Your task to perform on an android device: Check the settings for the Amazon Shopping app Image 0: 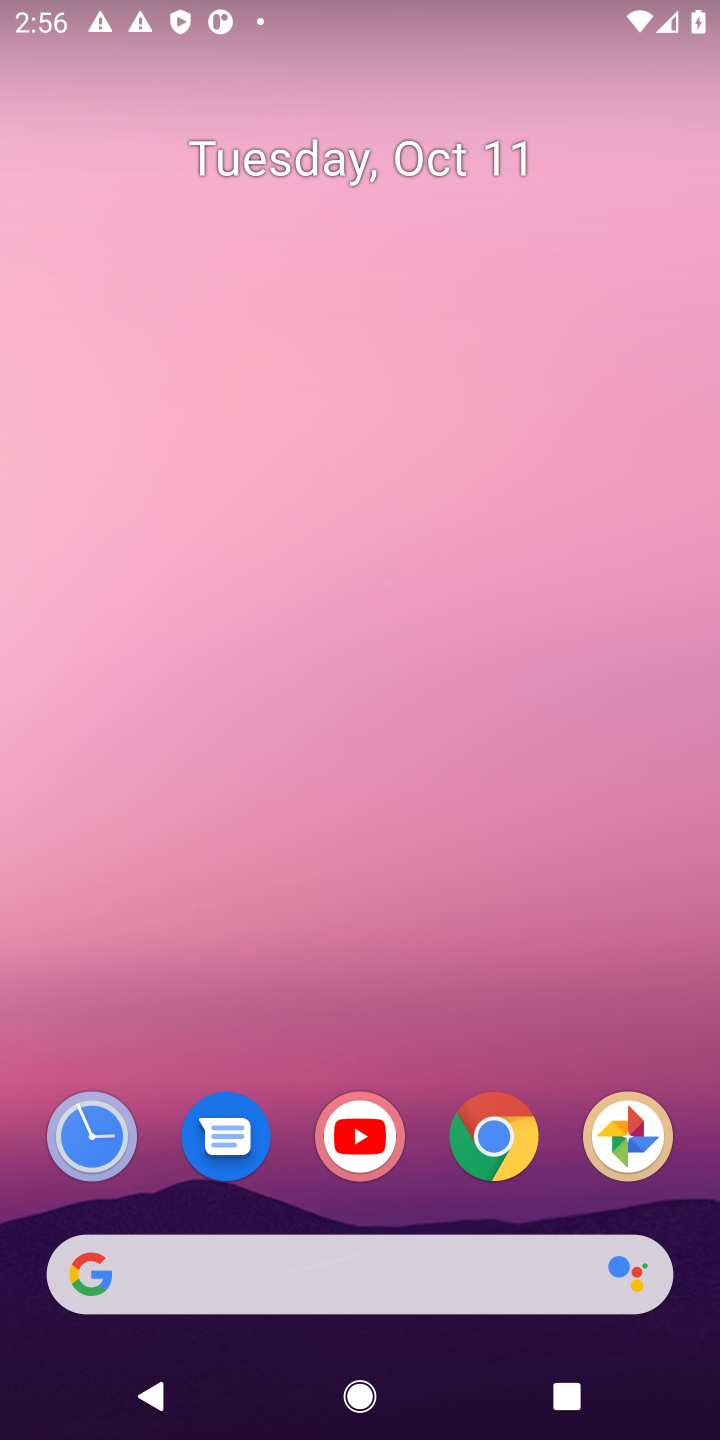
Step 0: click (501, 1150)
Your task to perform on an android device: Check the settings for the Amazon Shopping app Image 1: 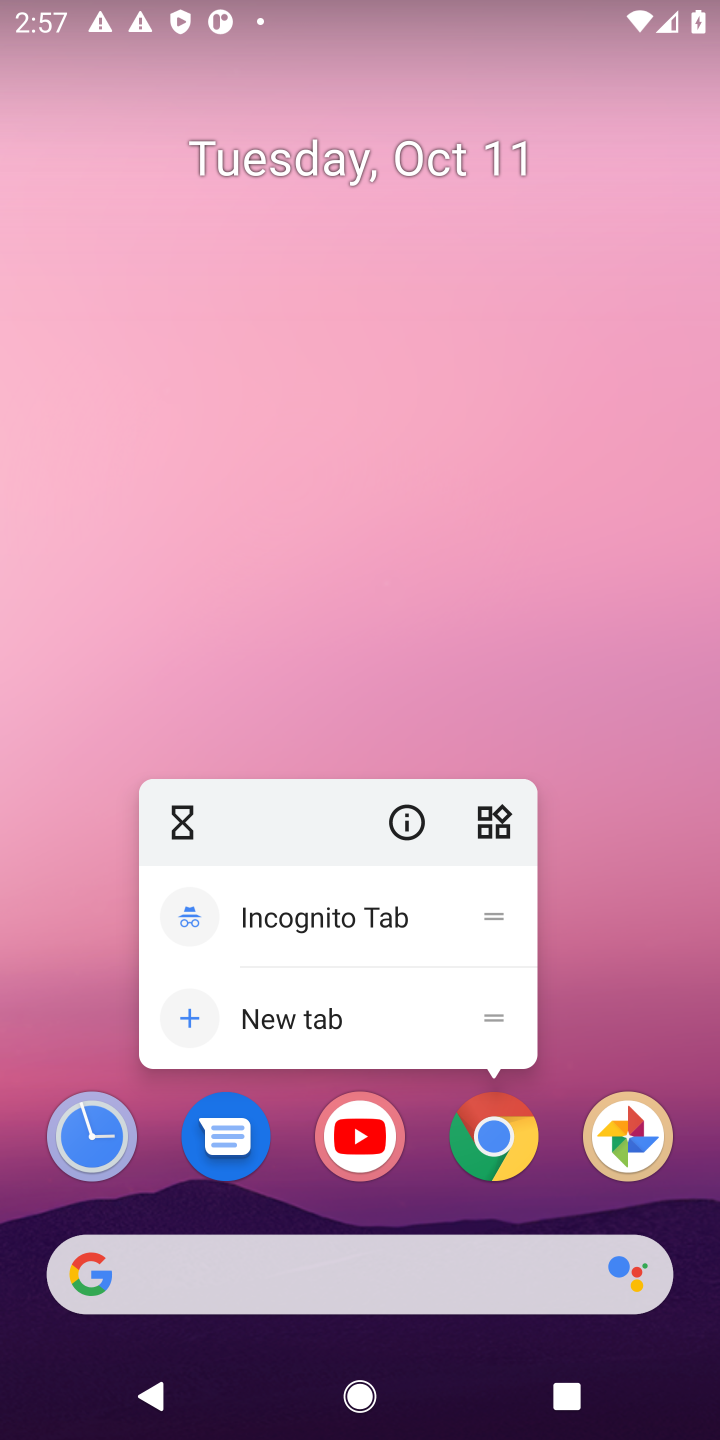
Step 1: click (493, 1140)
Your task to perform on an android device: Check the settings for the Amazon Shopping app Image 2: 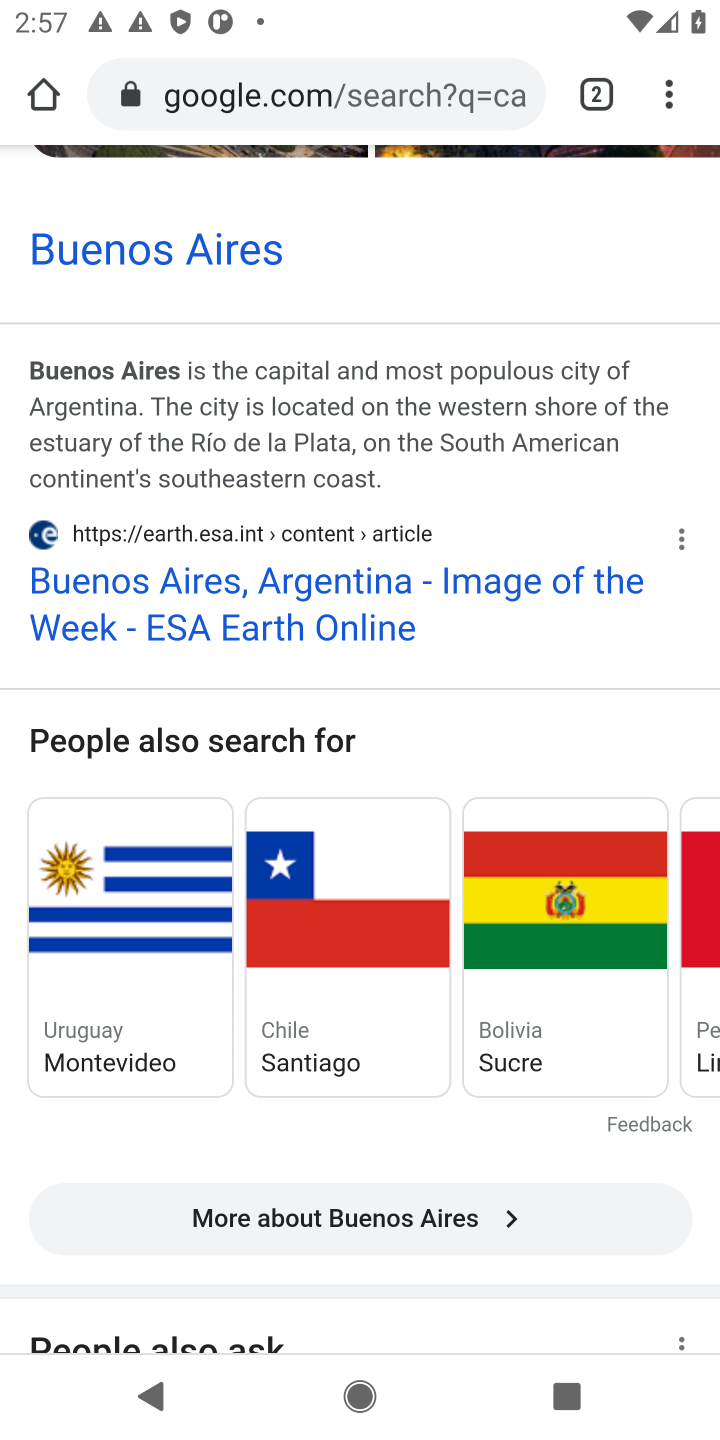
Step 2: task complete